Your task to perform on an android device: Open Google Maps and go to "Timeline" Image 0: 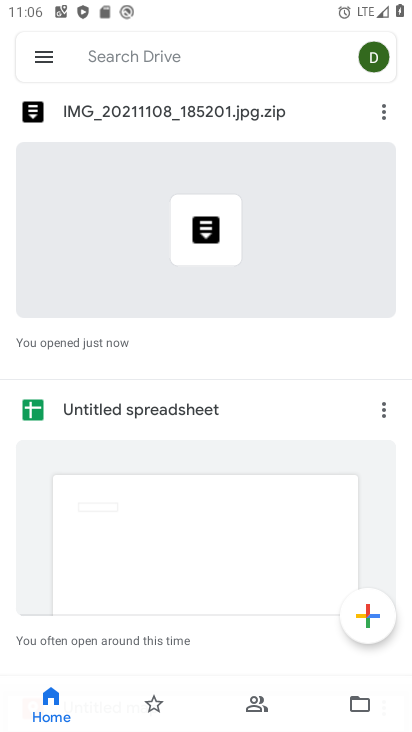
Step 0: press home button
Your task to perform on an android device: Open Google Maps and go to "Timeline" Image 1: 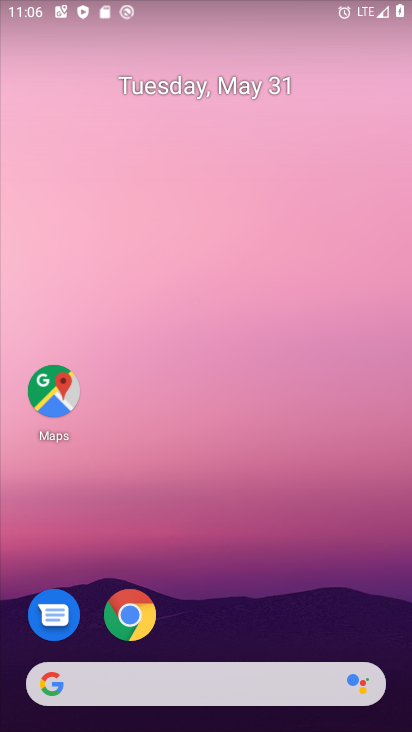
Step 1: drag from (292, 475) to (234, 38)
Your task to perform on an android device: Open Google Maps and go to "Timeline" Image 2: 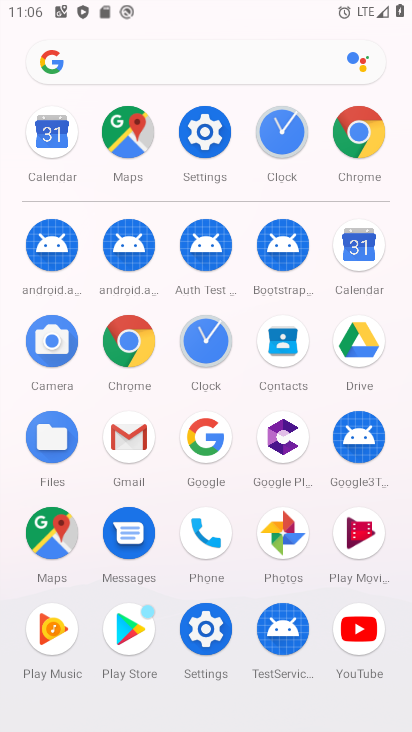
Step 2: click (130, 142)
Your task to perform on an android device: Open Google Maps and go to "Timeline" Image 3: 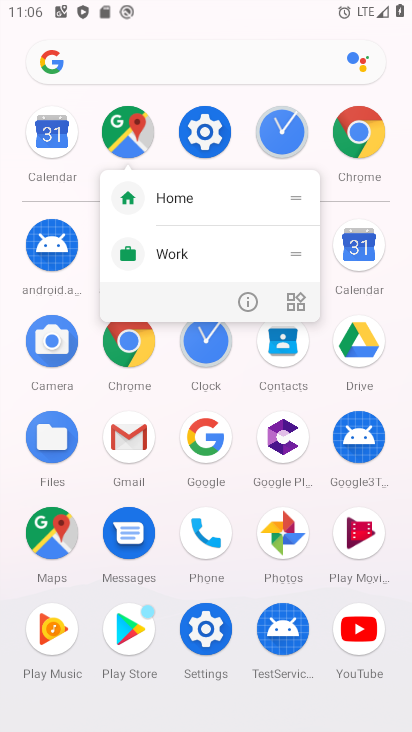
Step 3: click (130, 143)
Your task to perform on an android device: Open Google Maps and go to "Timeline" Image 4: 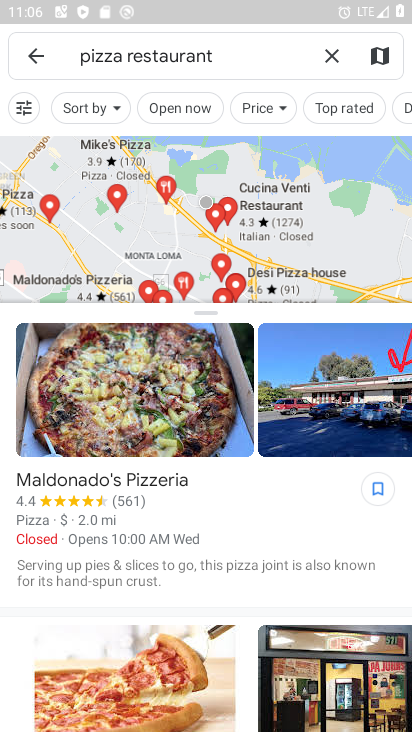
Step 4: click (21, 58)
Your task to perform on an android device: Open Google Maps and go to "Timeline" Image 5: 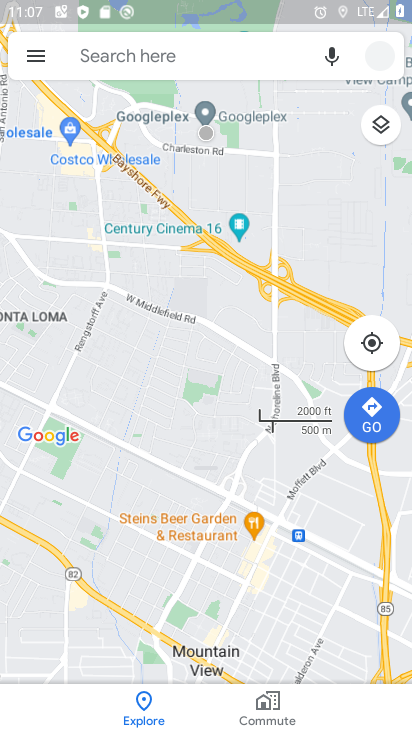
Step 5: click (21, 57)
Your task to perform on an android device: Open Google Maps and go to "Timeline" Image 6: 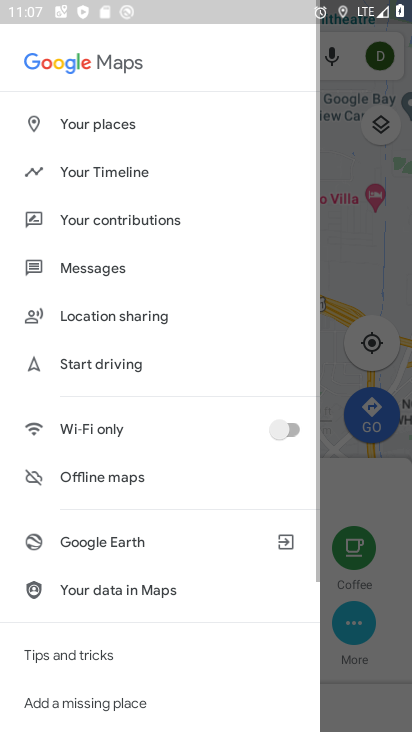
Step 6: click (50, 42)
Your task to perform on an android device: Open Google Maps and go to "Timeline" Image 7: 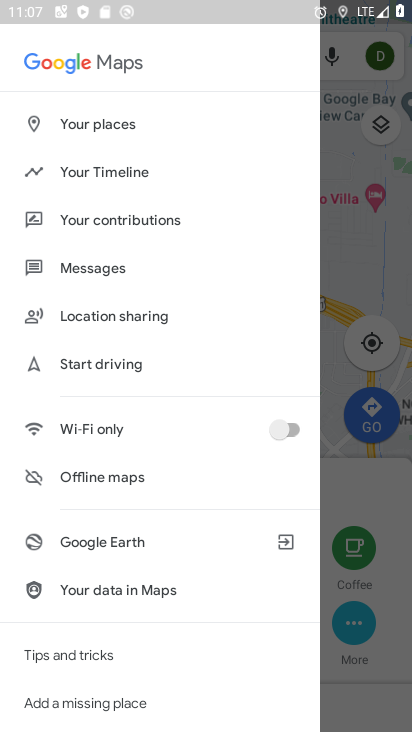
Step 7: click (116, 176)
Your task to perform on an android device: Open Google Maps and go to "Timeline" Image 8: 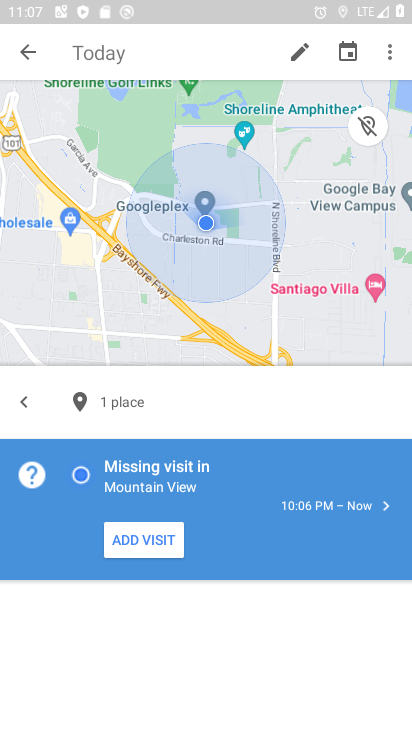
Step 8: task complete